Your task to perform on an android device: Open Maps and search for coffee Image 0: 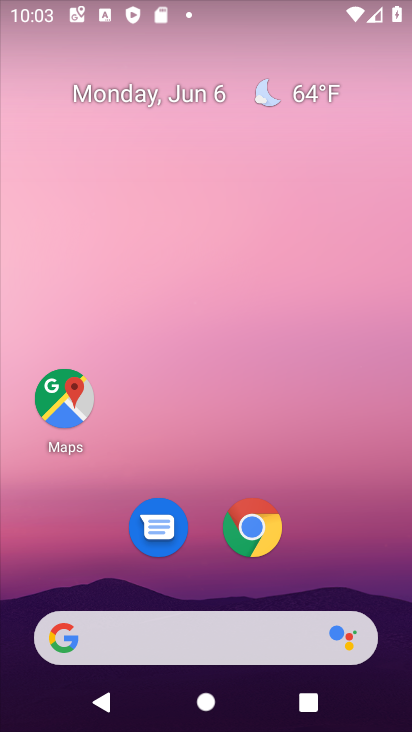
Step 0: drag from (296, 595) to (214, 67)
Your task to perform on an android device: Open Maps and search for coffee Image 1: 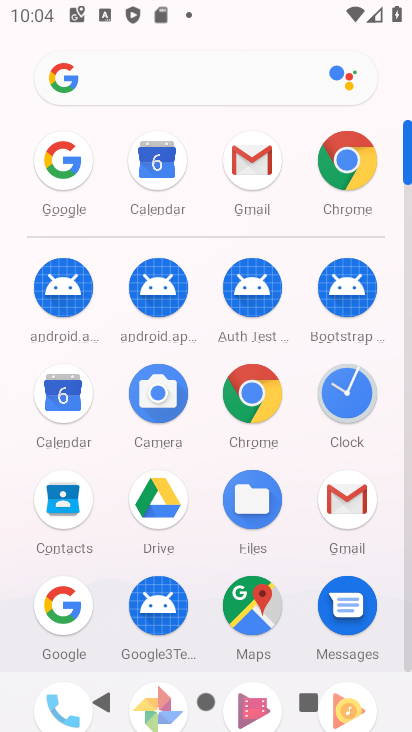
Step 1: click (242, 616)
Your task to perform on an android device: Open Maps and search for coffee Image 2: 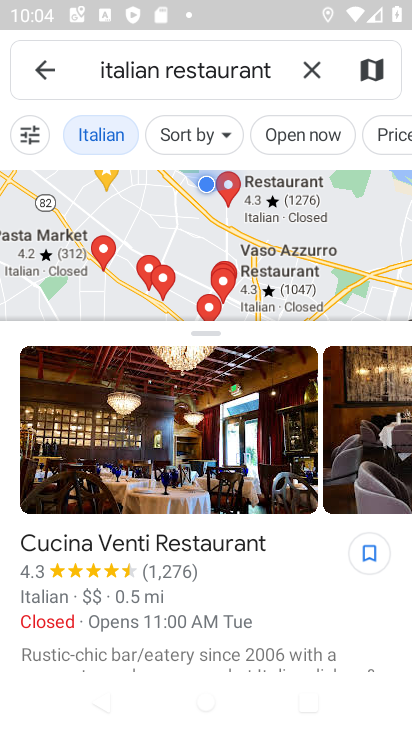
Step 2: click (313, 75)
Your task to perform on an android device: Open Maps and search for coffee Image 3: 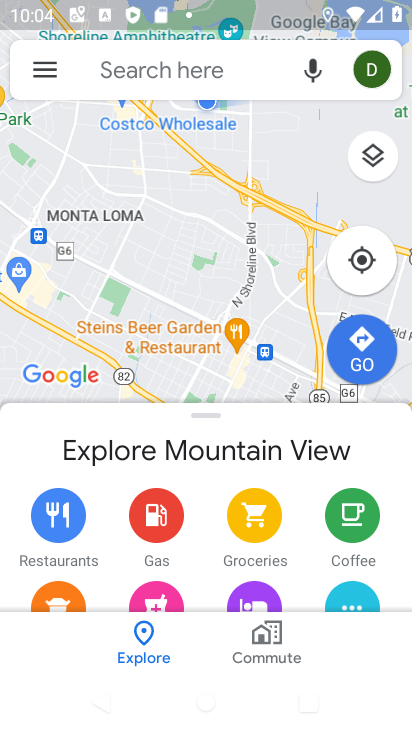
Step 3: click (202, 69)
Your task to perform on an android device: Open Maps and search for coffee Image 4: 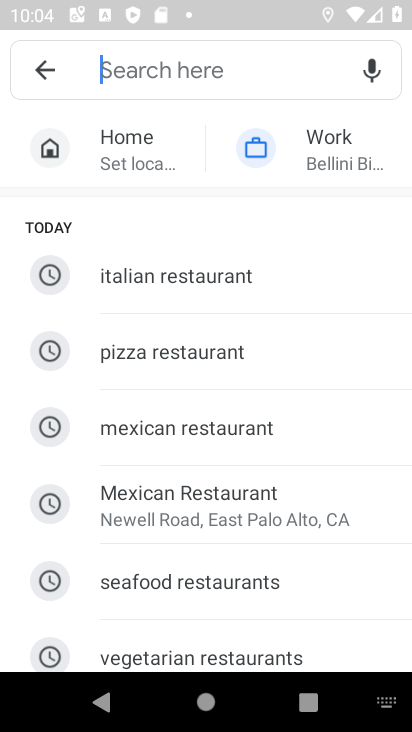
Step 4: drag from (239, 564) to (283, 268)
Your task to perform on an android device: Open Maps and search for coffee Image 5: 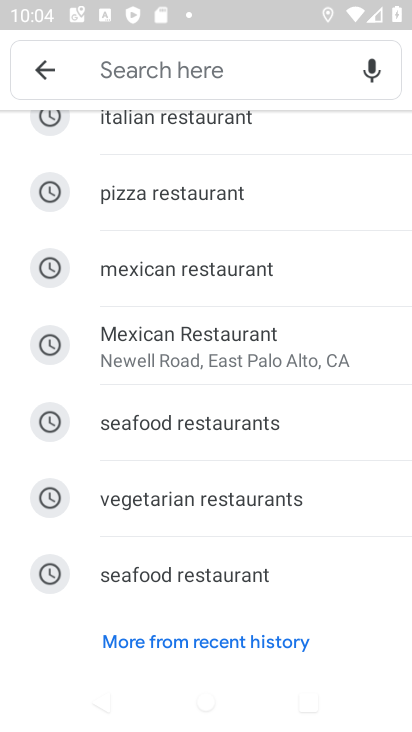
Step 5: drag from (260, 484) to (249, 115)
Your task to perform on an android device: Open Maps and search for coffee Image 6: 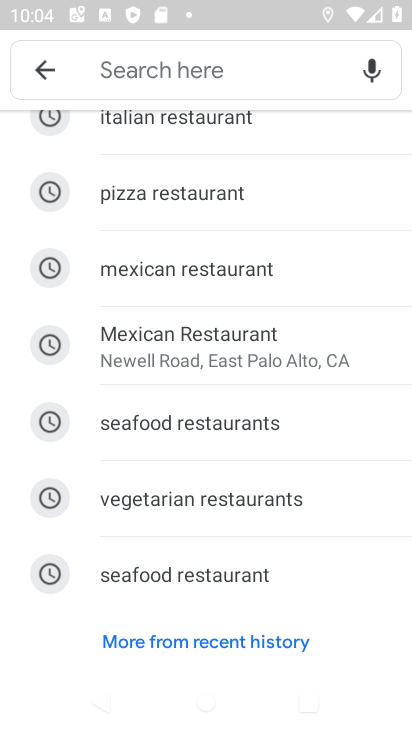
Step 6: click (250, 86)
Your task to perform on an android device: Open Maps and search for coffee Image 7: 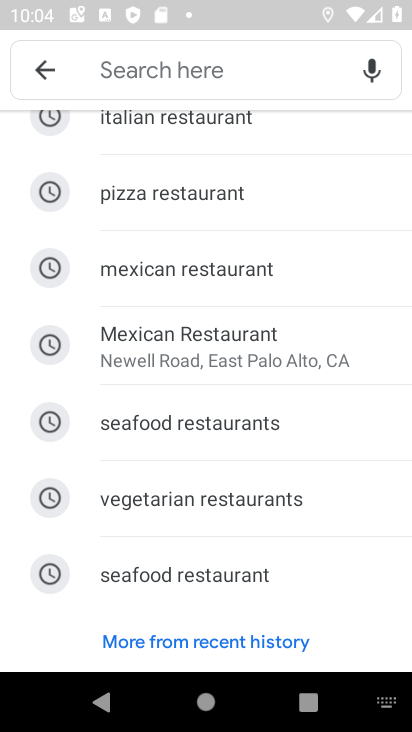
Step 7: type "coffee"
Your task to perform on an android device: Open Maps and search for coffee Image 8: 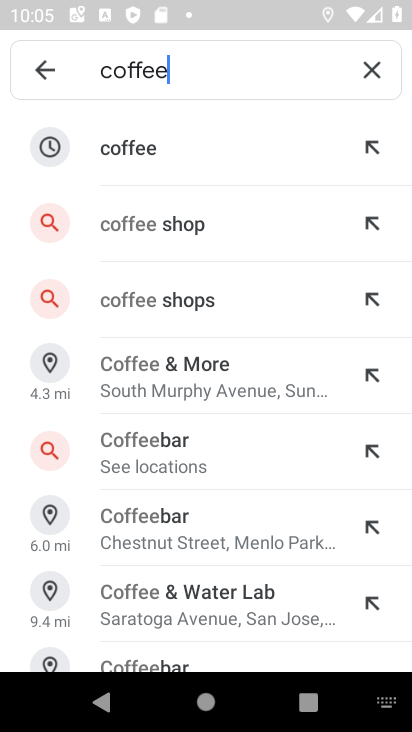
Step 8: click (219, 163)
Your task to perform on an android device: Open Maps and search for coffee Image 9: 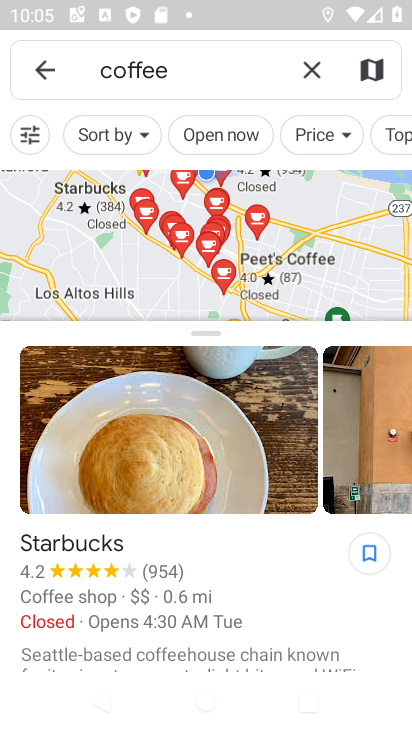
Step 9: task complete